Your task to perform on an android device: turn off smart reply in the gmail app Image 0: 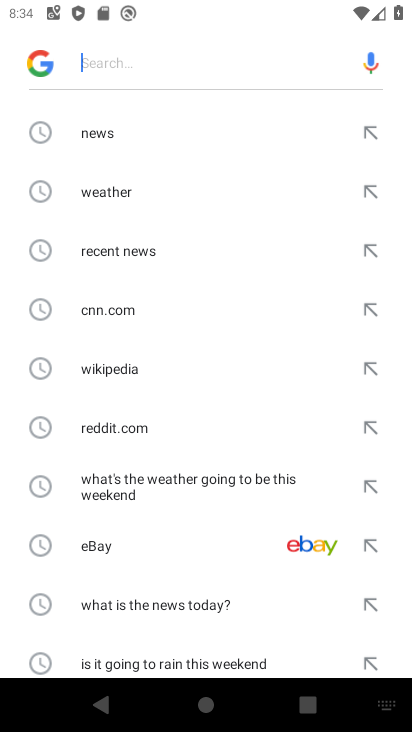
Step 0: press home button
Your task to perform on an android device: turn off smart reply in the gmail app Image 1: 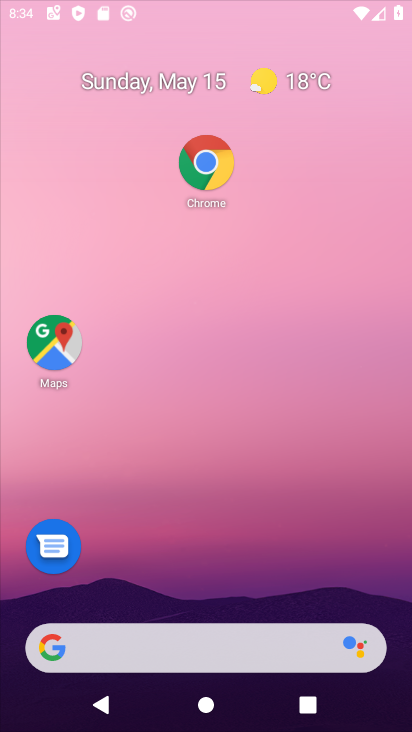
Step 1: drag from (259, 586) to (274, 234)
Your task to perform on an android device: turn off smart reply in the gmail app Image 2: 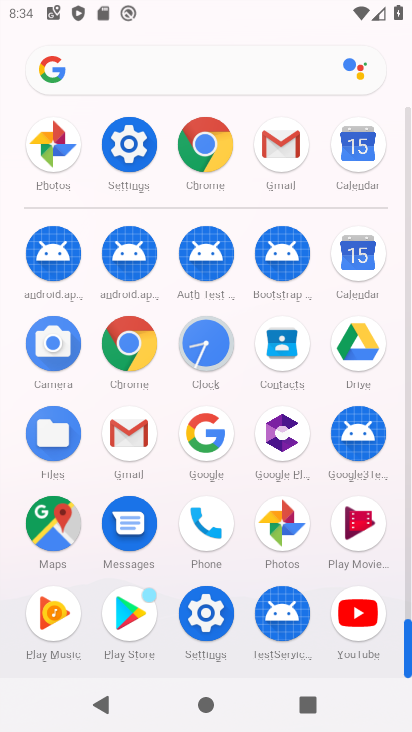
Step 2: click (281, 145)
Your task to perform on an android device: turn off smart reply in the gmail app Image 3: 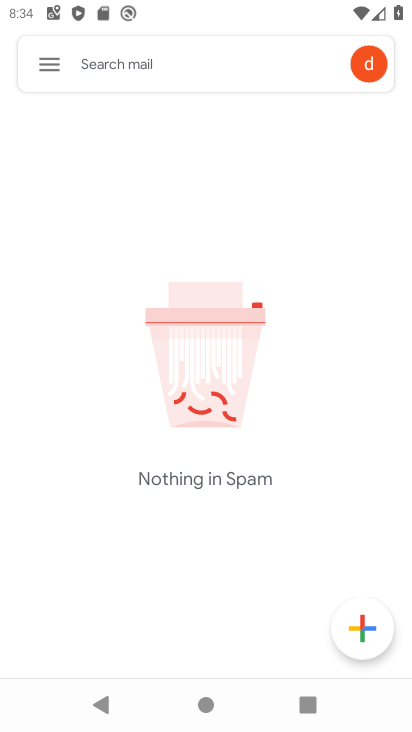
Step 3: click (40, 58)
Your task to perform on an android device: turn off smart reply in the gmail app Image 4: 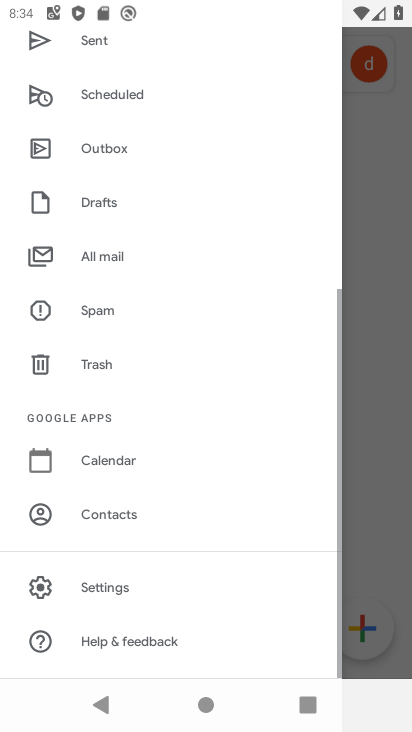
Step 4: click (144, 591)
Your task to perform on an android device: turn off smart reply in the gmail app Image 5: 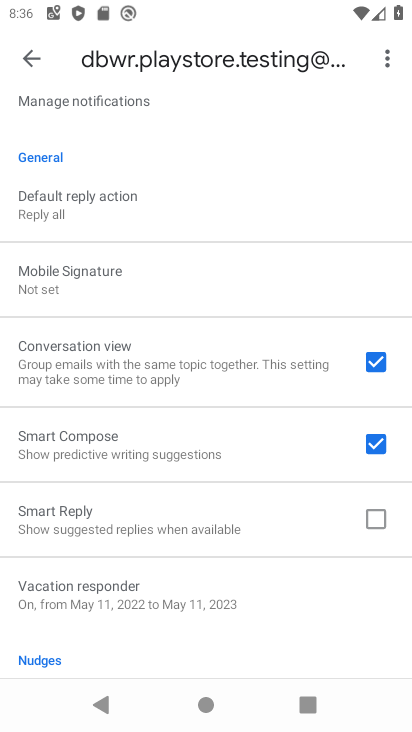
Step 5: task complete